Your task to perform on an android device: toggle priority inbox in the gmail app Image 0: 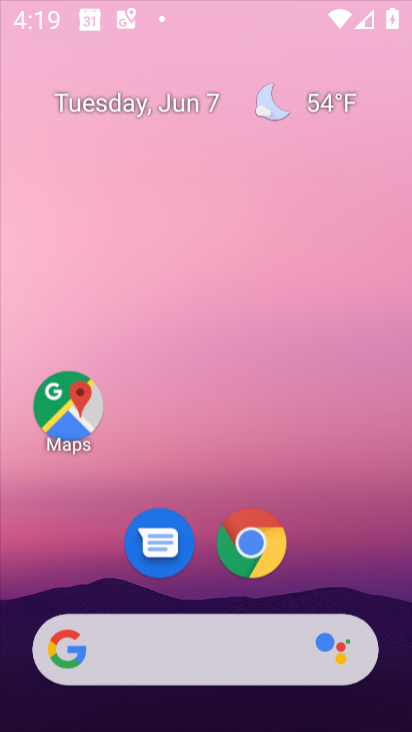
Step 0: click (238, 697)
Your task to perform on an android device: toggle priority inbox in the gmail app Image 1: 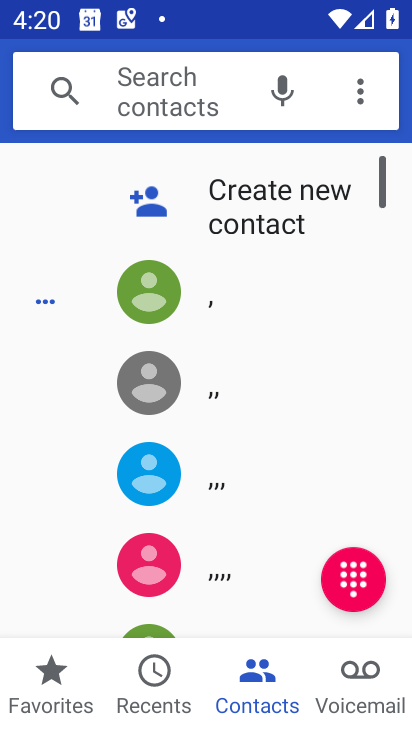
Step 1: task complete